Your task to perform on an android device: Open battery settings Image 0: 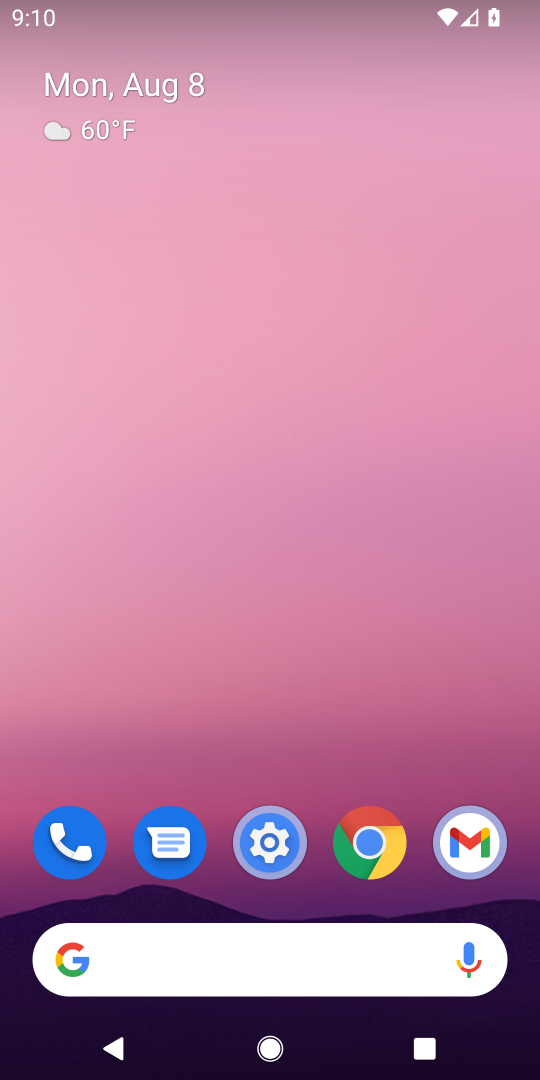
Step 0: click (270, 833)
Your task to perform on an android device: Open battery settings Image 1: 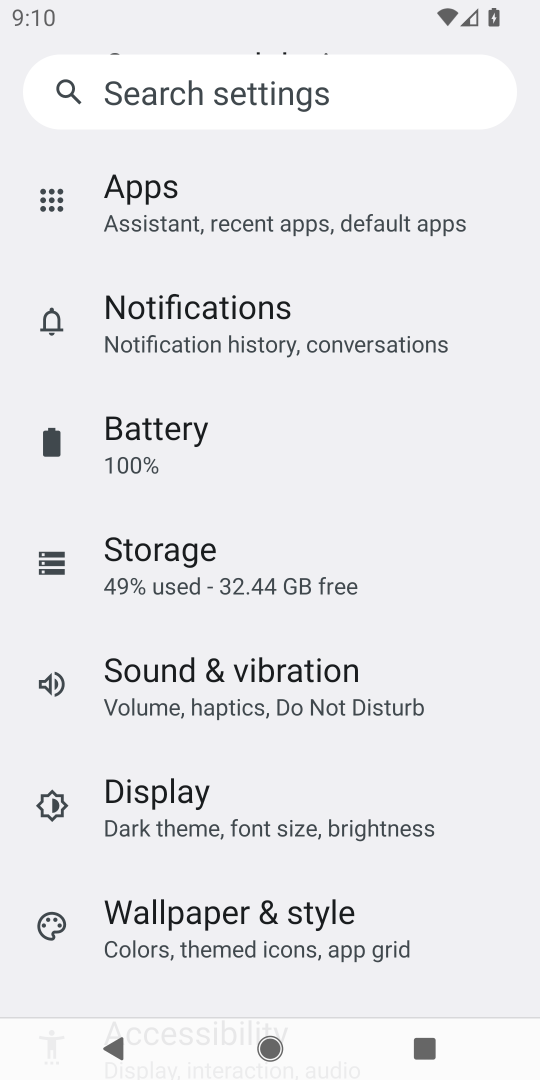
Step 1: click (224, 455)
Your task to perform on an android device: Open battery settings Image 2: 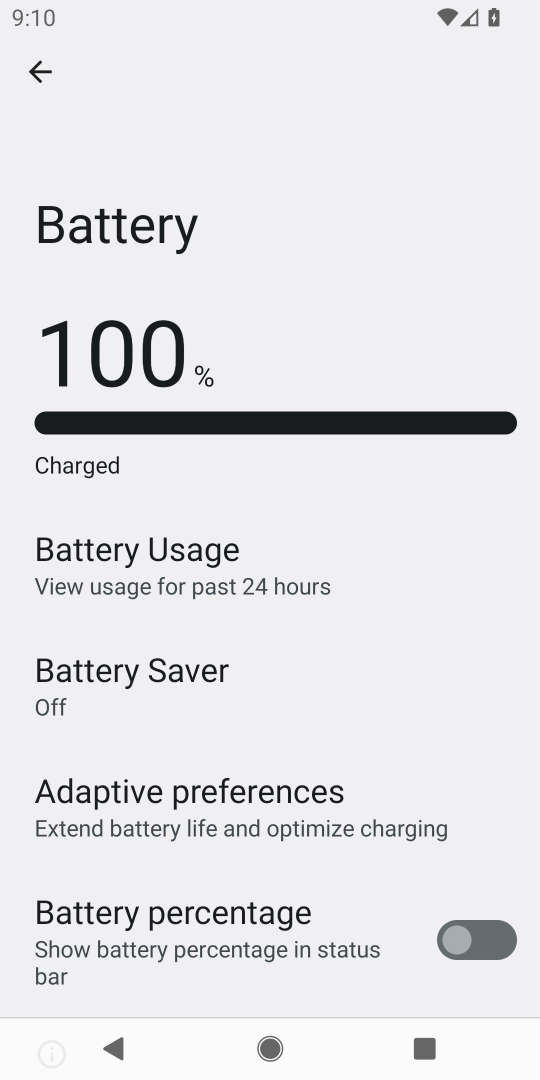
Step 2: task complete